Your task to perform on an android device: Search for Italian restaurants on Maps Image 0: 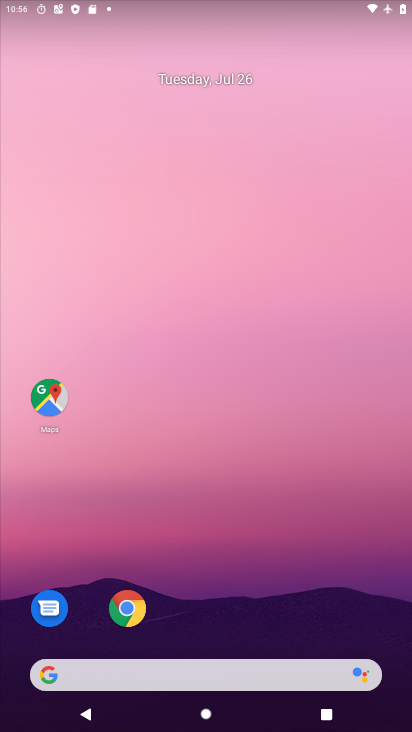
Step 0: click (47, 383)
Your task to perform on an android device: Search for Italian restaurants on Maps Image 1: 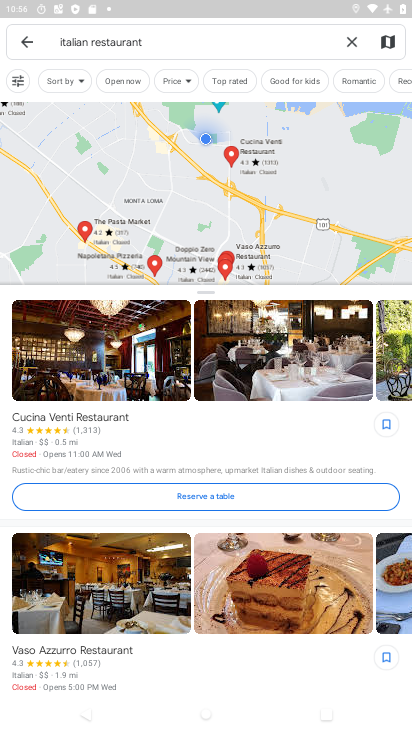
Step 1: click (346, 42)
Your task to perform on an android device: Search for Italian restaurants on Maps Image 2: 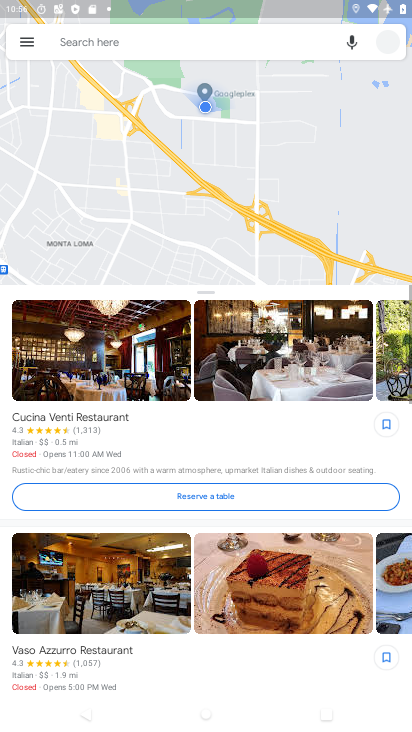
Step 2: click (153, 48)
Your task to perform on an android device: Search for Italian restaurants on Maps Image 3: 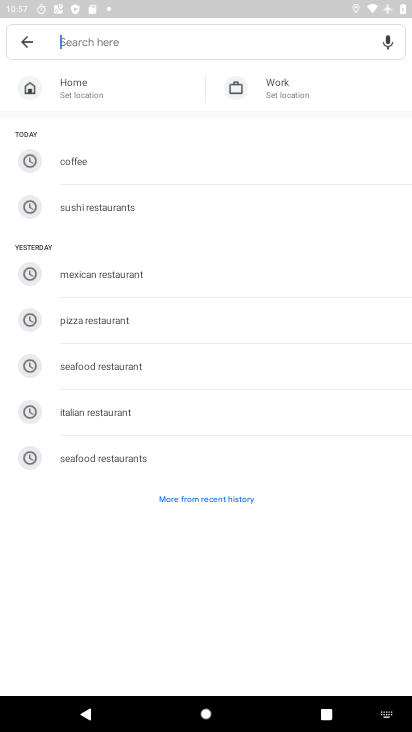
Step 3: type "Italian restaurants"
Your task to perform on an android device: Search for Italian restaurants on Maps Image 4: 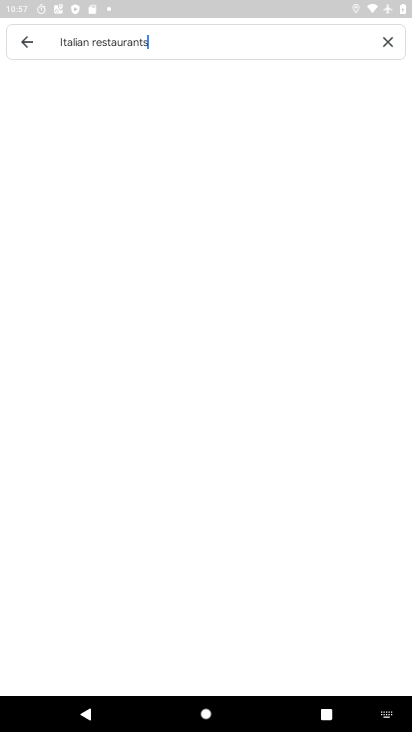
Step 4: type ""
Your task to perform on an android device: Search for Italian restaurants on Maps Image 5: 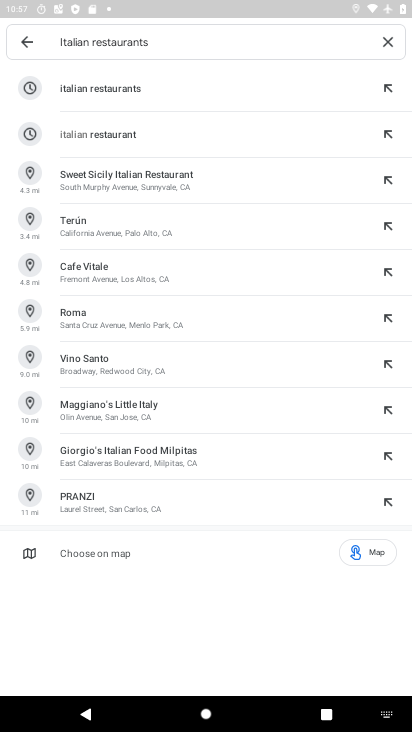
Step 5: click (136, 90)
Your task to perform on an android device: Search for Italian restaurants on Maps Image 6: 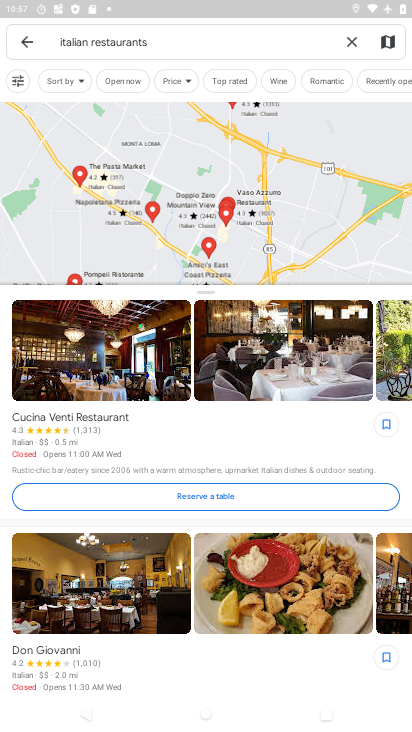
Step 6: task complete